Your task to perform on an android device: check battery use Image 0: 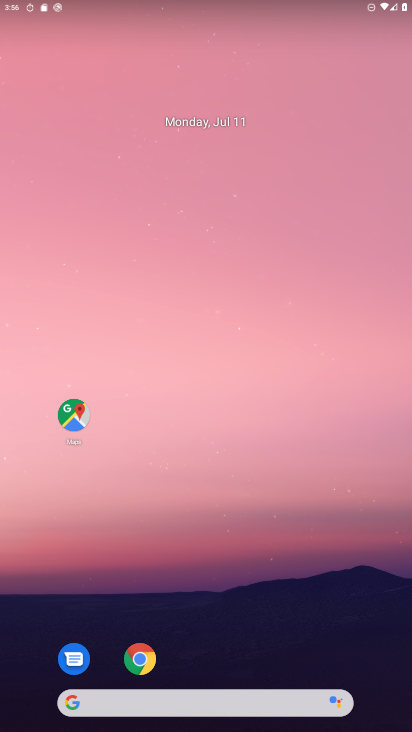
Step 0: drag from (246, 704) to (246, 391)
Your task to perform on an android device: check battery use Image 1: 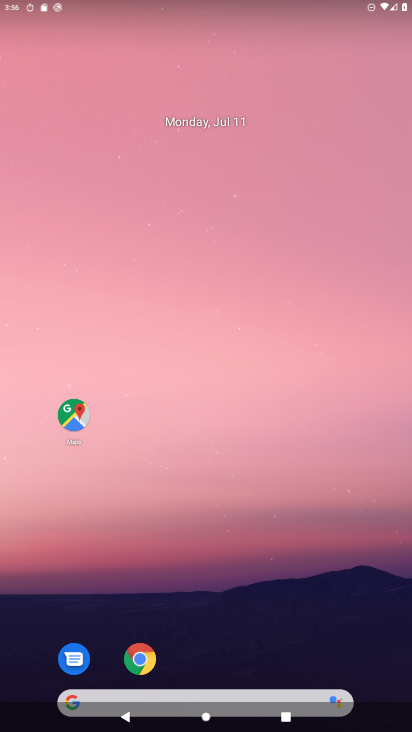
Step 1: drag from (237, 646) to (305, 136)
Your task to perform on an android device: check battery use Image 2: 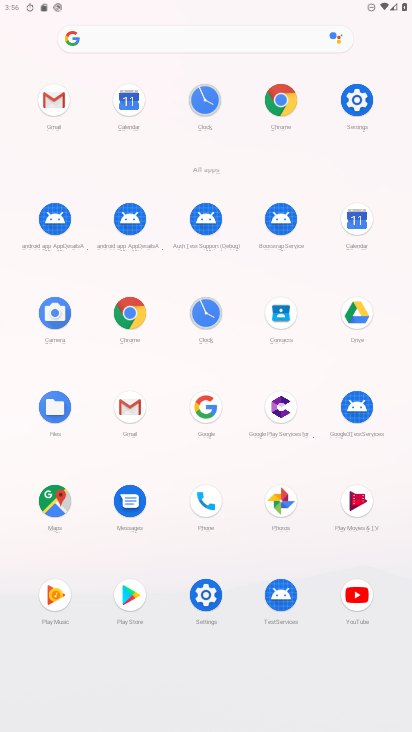
Step 2: click (354, 107)
Your task to perform on an android device: check battery use Image 3: 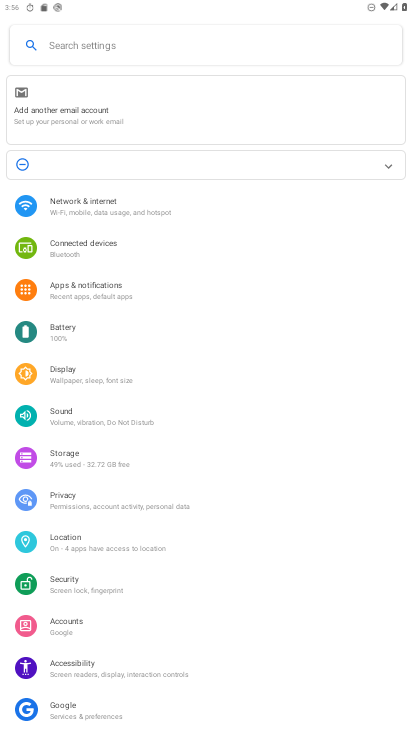
Step 3: click (94, 321)
Your task to perform on an android device: check battery use Image 4: 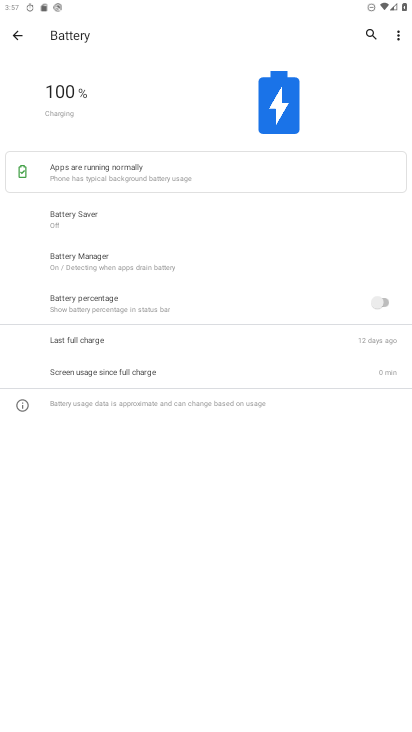
Step 4: task complete